Your task to perform on an android device: Is it going to rain this weekend? Image 0: 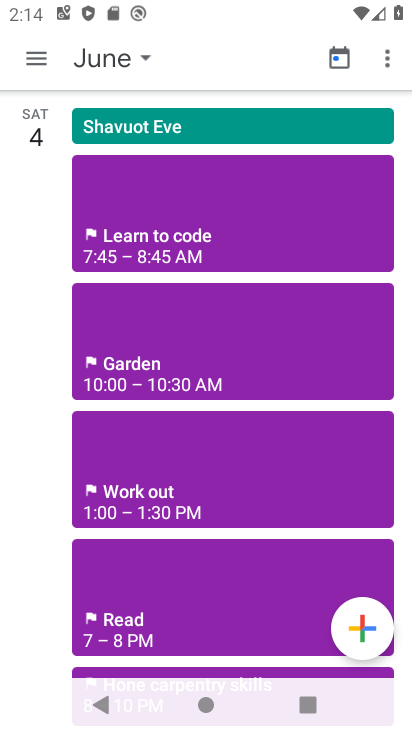
Step 0: press home button
Your task to perform on an android device: Is it going to rain this weekend? Image 1: 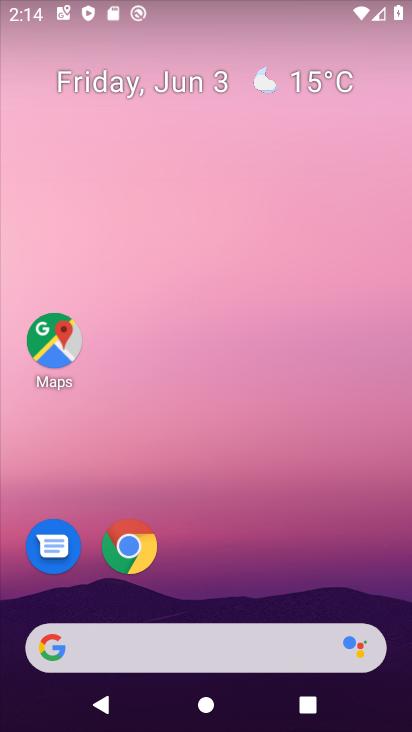
Step 1: drag from (274, 502) to (350, 5)
Your task to perform on an android device: Is it going to rain this weekend? Image 2: 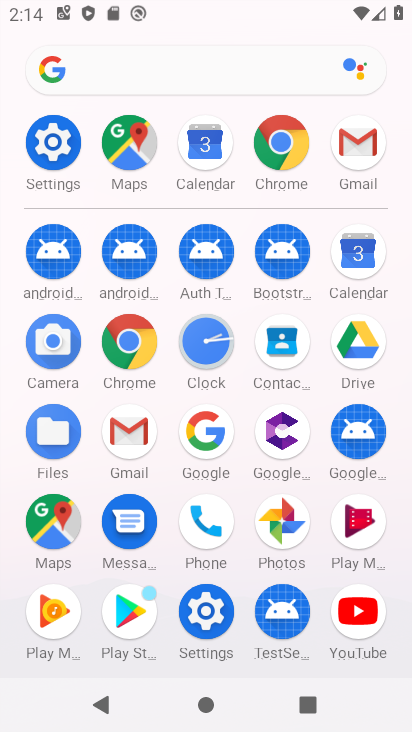
Step 2: press home button
Your task to perform on an android device: Is it going to rain this weekend? Image 3: 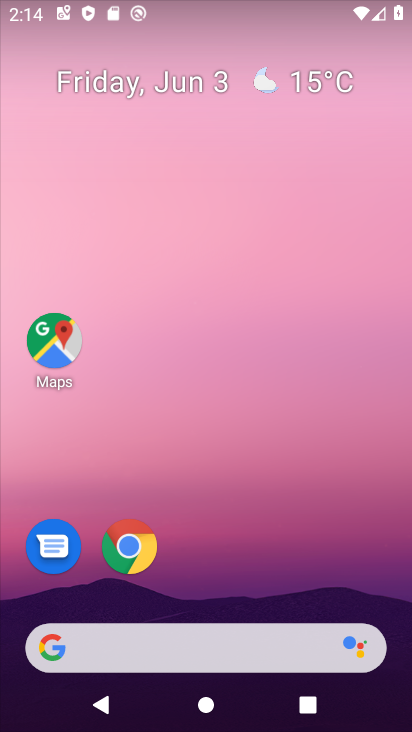
Step 3: click (341, 67)
Your task to perform on an android device: Is it going to rain this weekend? Image 4: 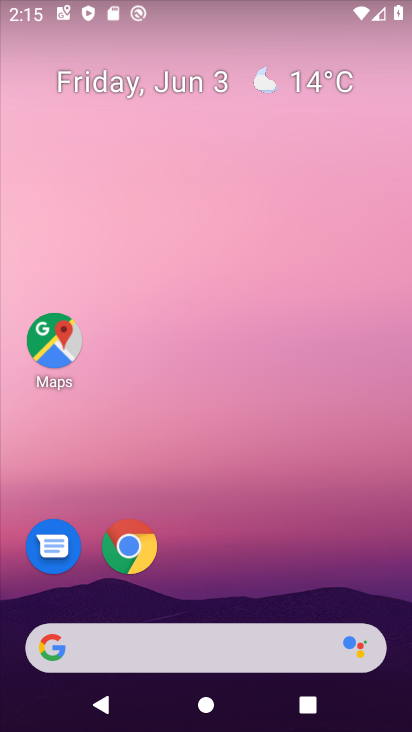
Step 4: click (333, 72)
Your task to perform on an android device: Is it going to rain this weekend? Image 5: 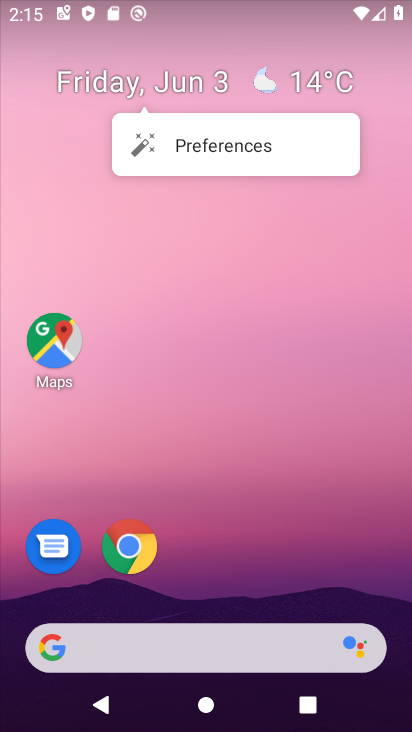
Step 5: click (325, 80)
Your task to perform on an android device: Is it going to rain this weekend? Image 6: 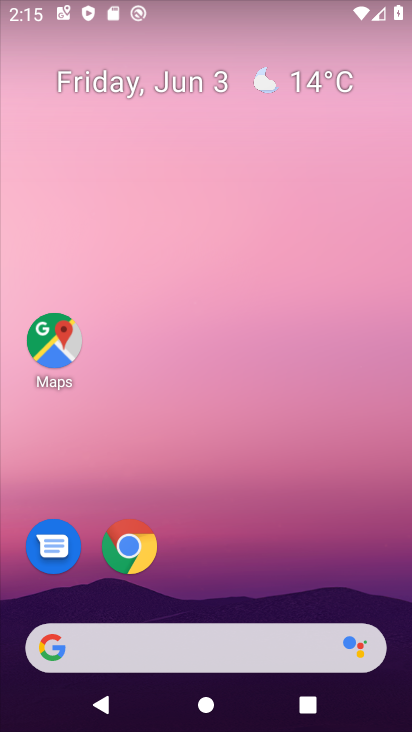
Step 6: click (322, 83)
Your task to perform on an android device: Is it going to rain this weekend? Image 7: 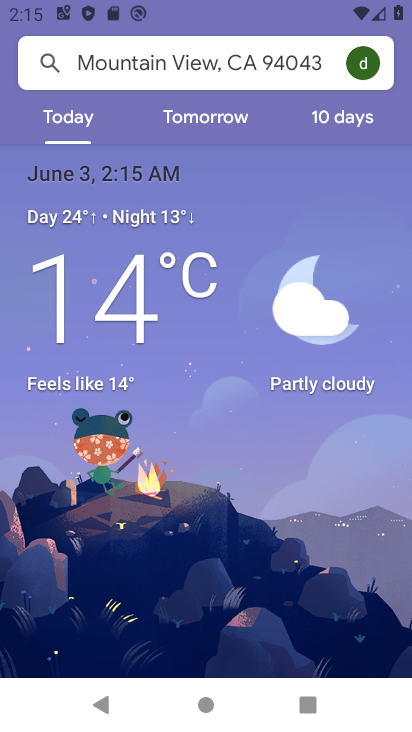
Step 7: click (333, 106)
Your task to perform on an android device: Is it going to rain this weekend? Image 8: 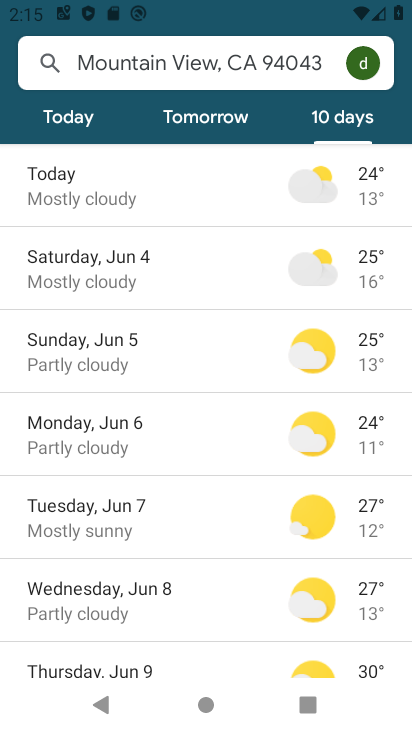
Step 8: task complete